Your task to perform on an android device: open a bookmark in the chrome app Image 0: 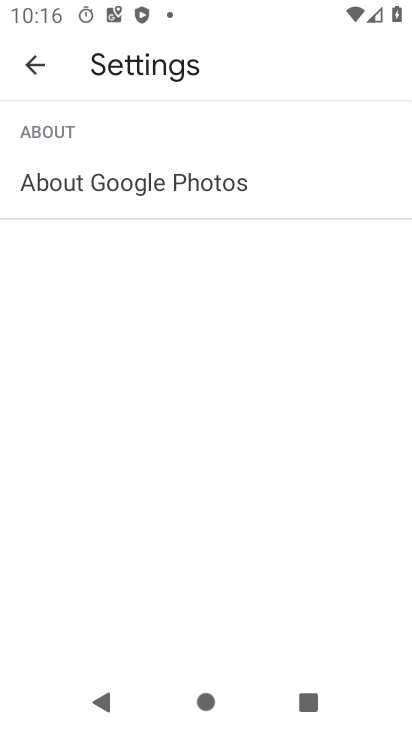
Step 0: press home button
Your task to perform on an android device: open a bookmark in the chrome app Image 1: 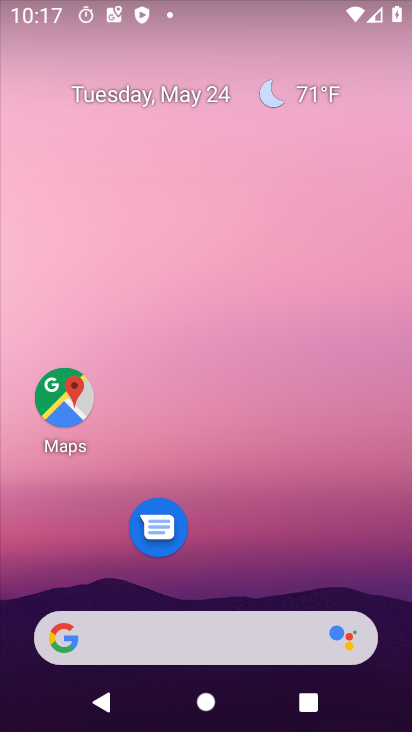
Step 1: drag from (237, 551) to (244, 12)
Your task to perform on an android device: open a bookmark in the chrome app Image 2: 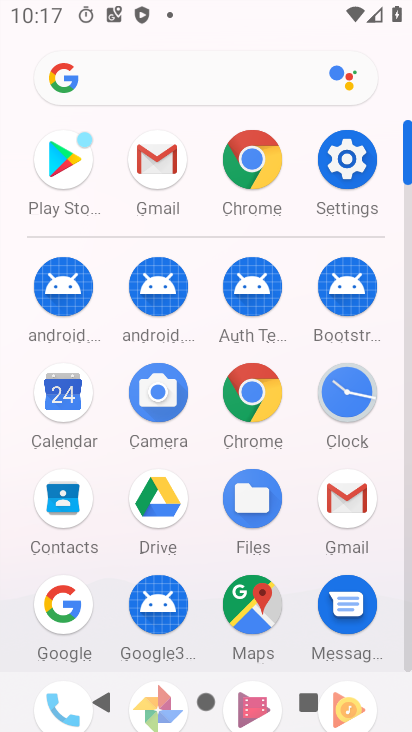
Step 2: click (265, 164)
Your task to perform on an android device: open a bookmark in the chrome app Image 3: 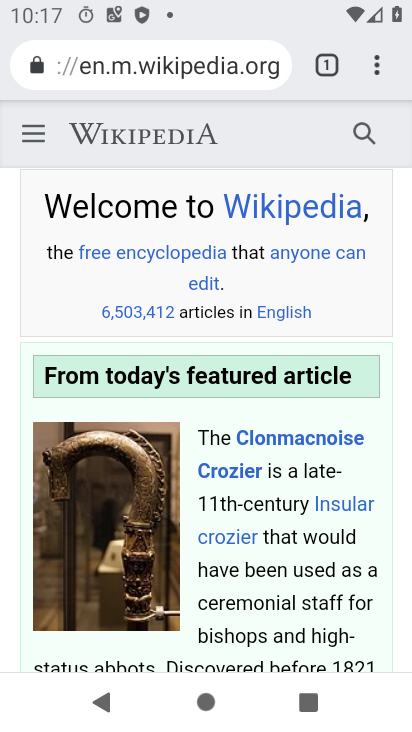
Step 3: click (370, 59)
Your task to perform on an android device: open a bookmark in the chrome app Image 4: 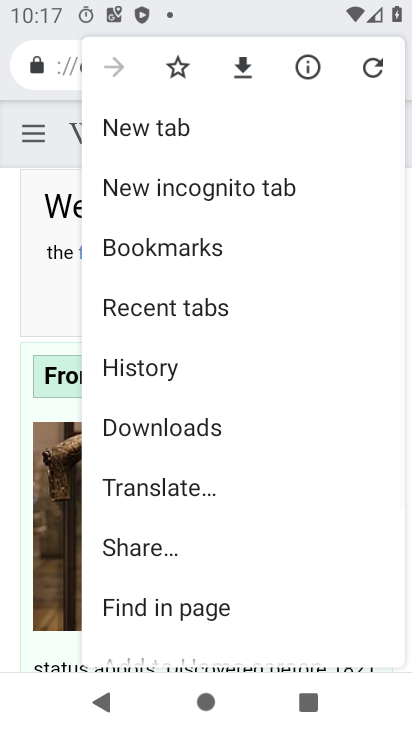
Step 4: click (199, 254)
Your task to perform on an android device: open a bookmark in the chrome app Image 5: 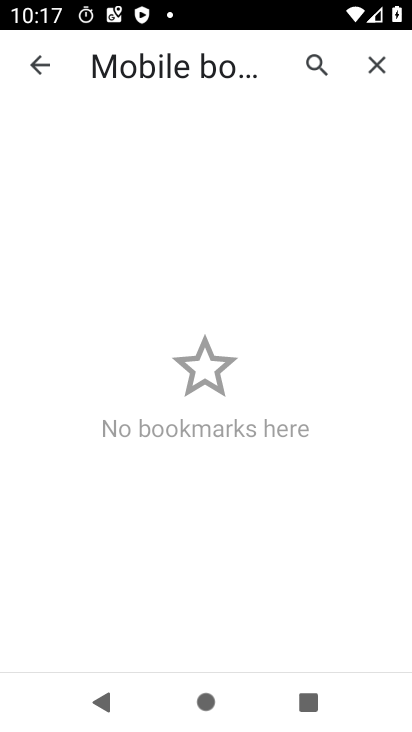
Step 5: task complete